Your task to perform on an android device: When is my next meeting? Image 0: 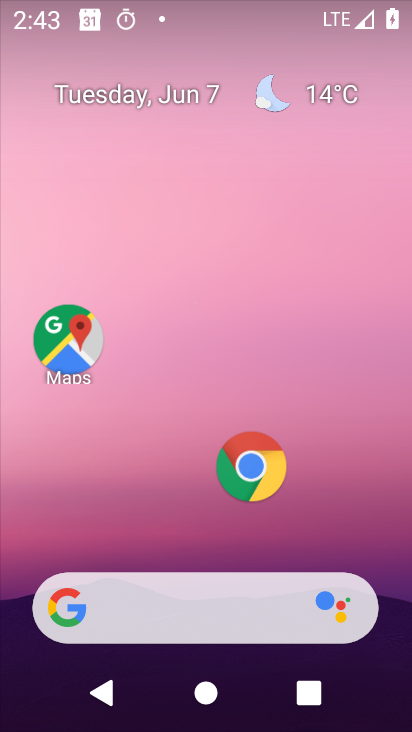
Step 0: drag from (162, 701) to (186, 345)
Your task to perform on an android device: When is my next meeting? Image 1: 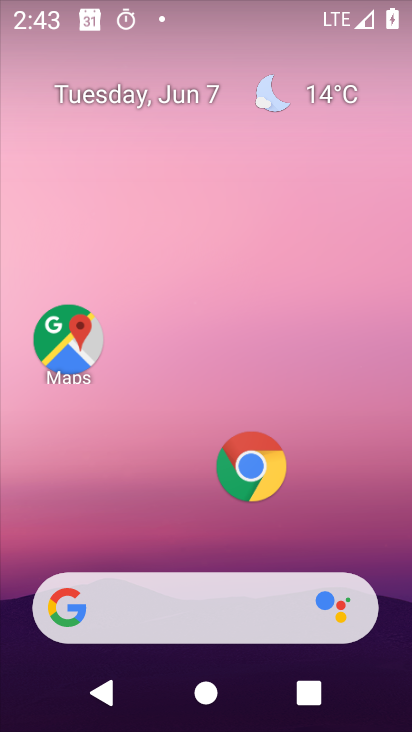
Step 1: drag from (155, 718) to (185, 158)
Your task to perform on an android device: When is my next meeting? Image 2: 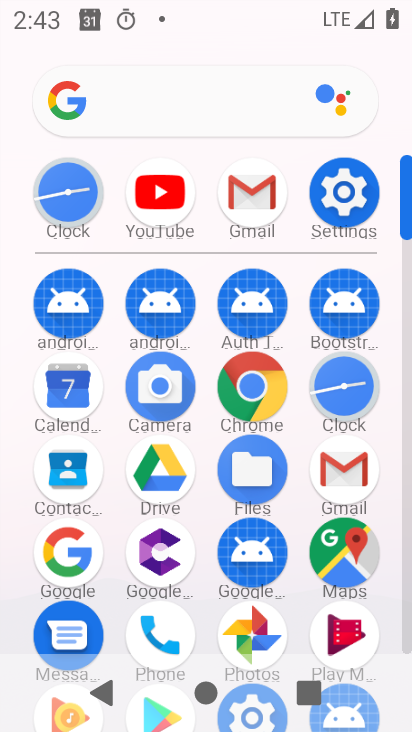
Step 2: click (76, 394)
Your task to perform on an android device: When is my next meeting? Image 3: 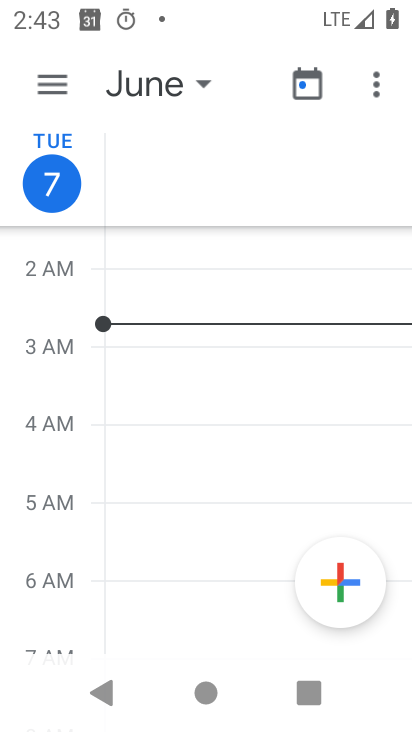
Step 3: click (53, 93)
Your task to perform on an android device: When is my next meeting? Image 4: 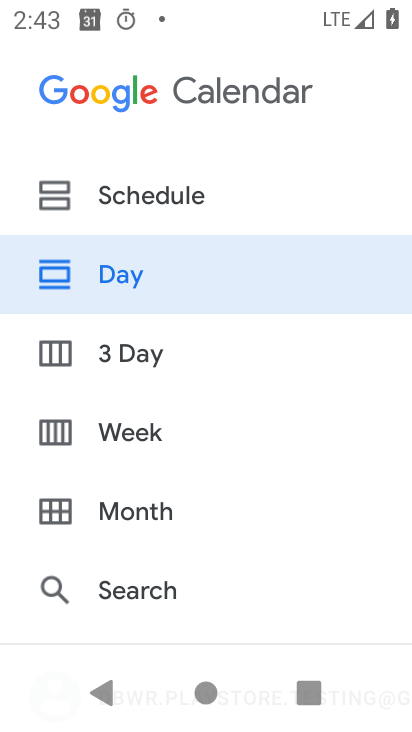
Step 4: click (141, 210)
Your task to perform on an android device: When is my next meeting? Image 5: 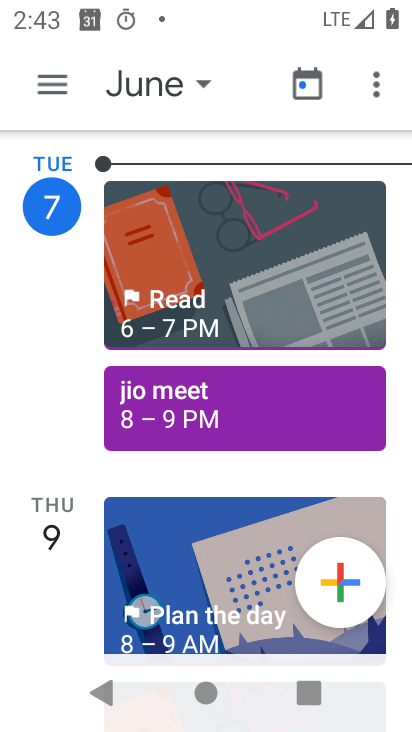
Step 5: click (255, 451)
Your task to perform on an android device: When is my next meeting? Image 6: 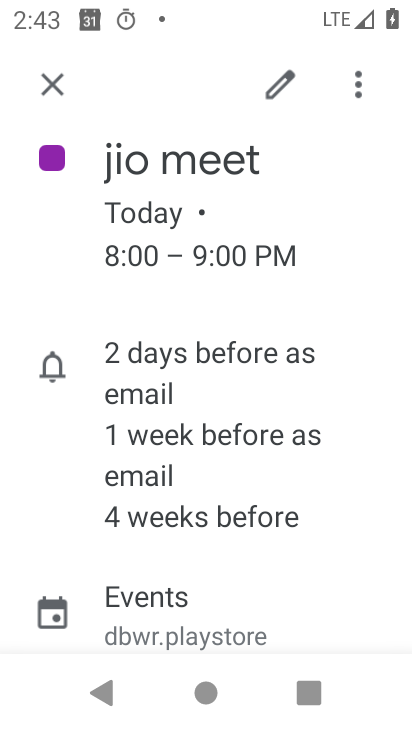
Step 6: task complete